Your task to perform on an android device: move an email to a new category in the gmail app Image 0: 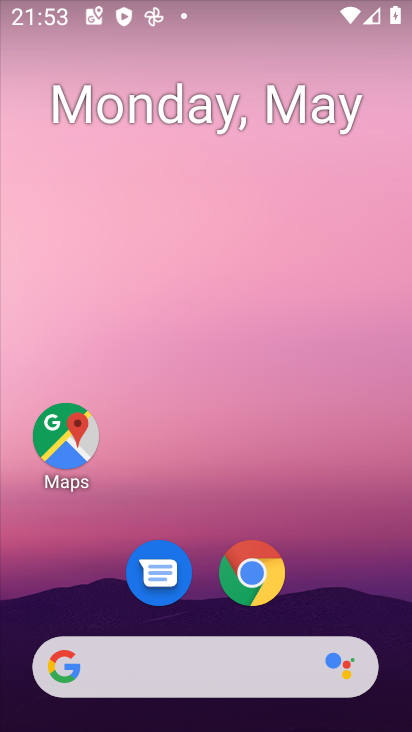
Step 0: drag from (382, 563) to (410, 119)
Your task to perform on an android device: move an email to a new category in the gmail app Image 1: 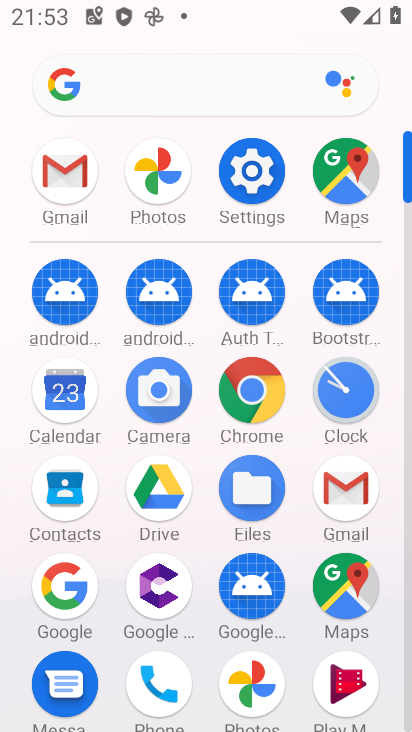
Step 1: click (58, 175)
Your task to perform on an android device: move an email to a new category in the gmail app Image 2: 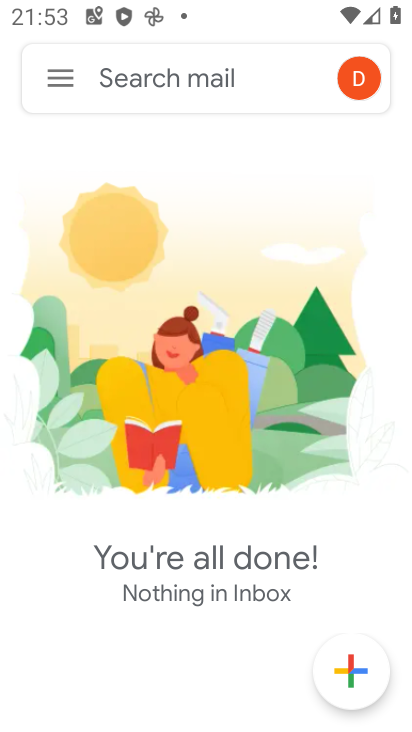
Step 2: task complete